Your task to perform on an android device: turn off smart reply in the gmail app Image 0: 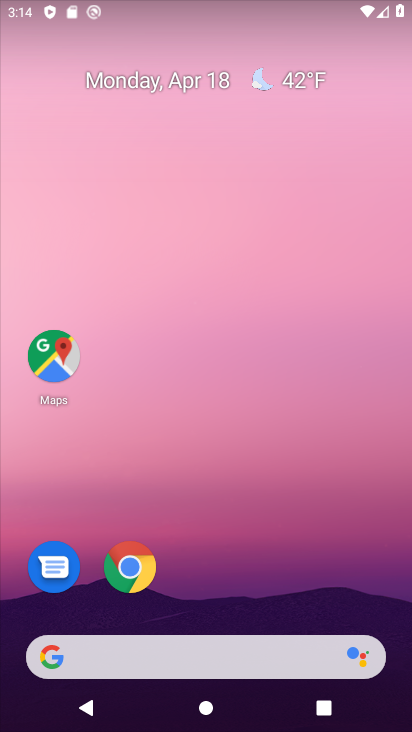
Step 0: drag from (259, 367) to (299, 143)
Your task to perform on an android device: turn off smart reply in the gmail app Image 1: 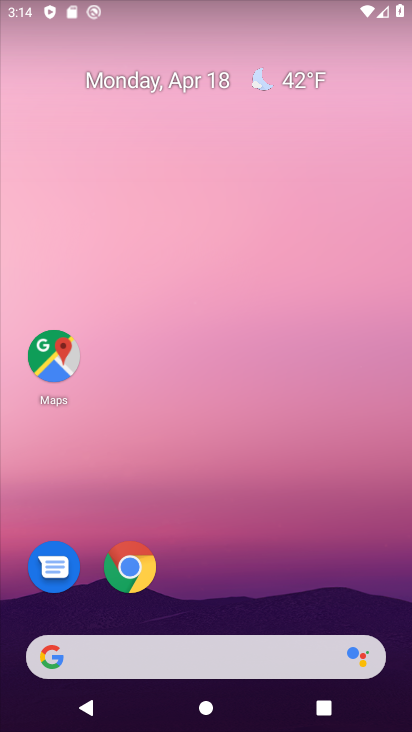
Step 1: drag from (215, 641) to (335, 80)
Your task to perform on an android device: turn off smart reply in the gmail app Image 2: 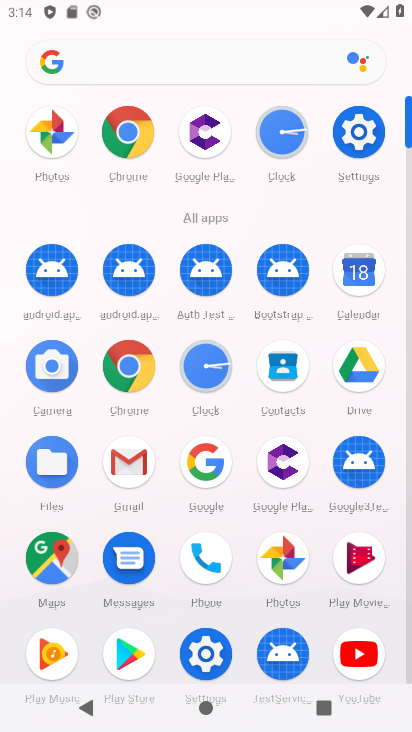
Step 2: click (149, 457)
Your task to perform on an android device: turn off smart reply in the gmail app Image 3: 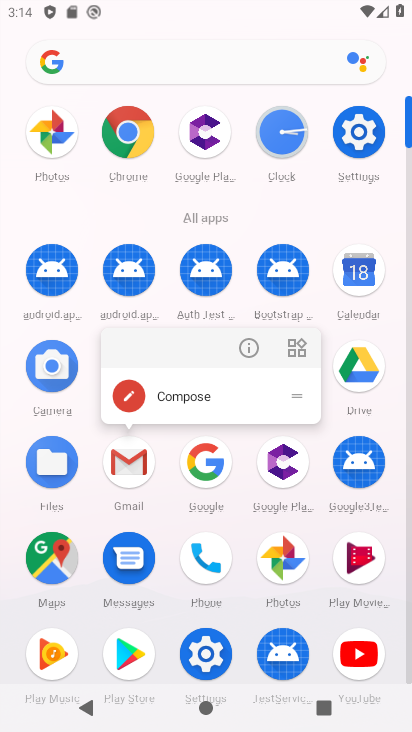
Step 3: click (129, 457)
Your task to perform on an android device: turn off smart reply in the gmail app Image 4: 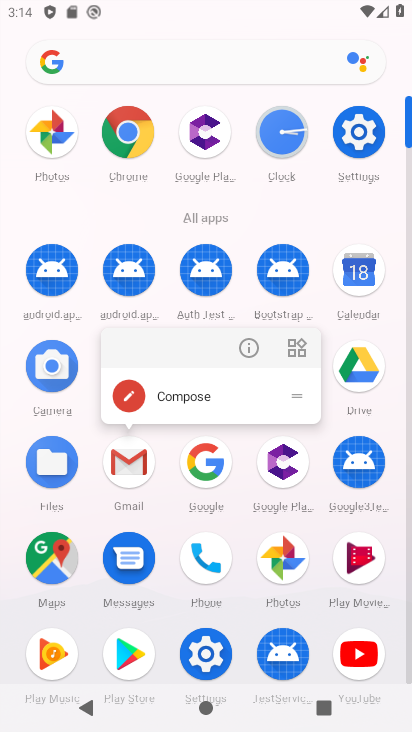
Step 4: click (128, 458)
Your task to perform on an android device: turn off smart reply in the gmail app Image 5: 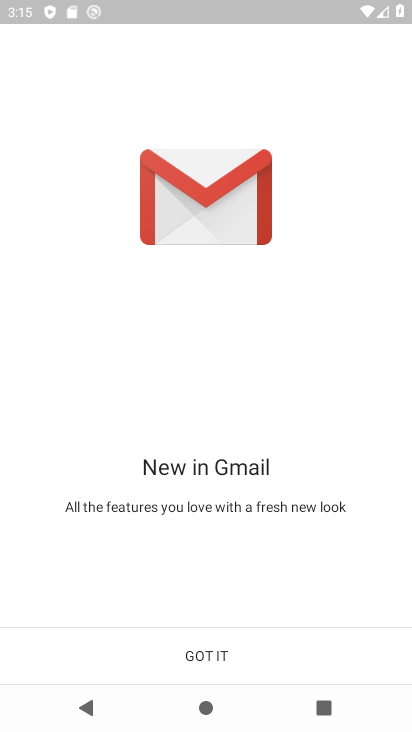
Step 5: click (252, 673)
Your task to perform on an android device: turn off smart reply in the gmail app Image 6: 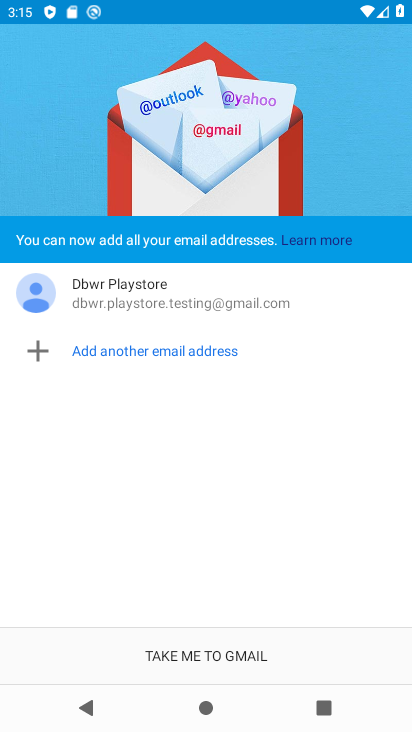
Step 6: click (258, 670)
Your task to perform on an android device: turn off smart reply in the gmail app Image 7: 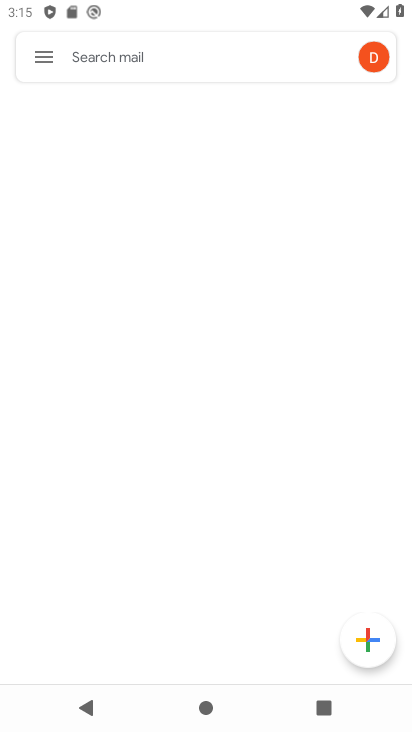
Step 7: click (37, 51)
Your task to perform on an android device: turn off smart reply in the gmail app Image 8: 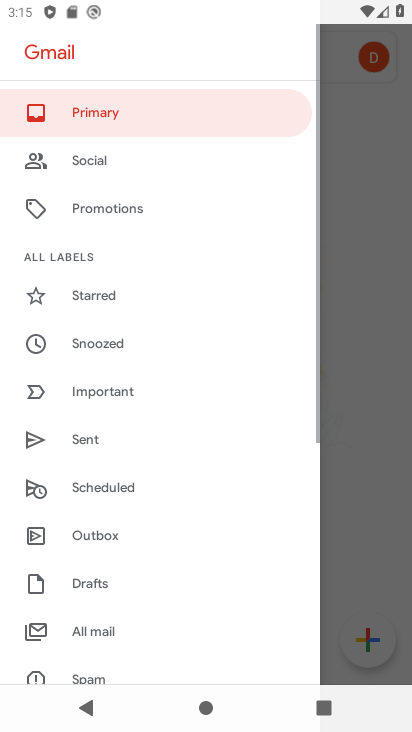
Step 8: drag from (106, 643) to (216, 223)
Your task to perform on an android device: turn off smart reply in the gmail app Image 9: 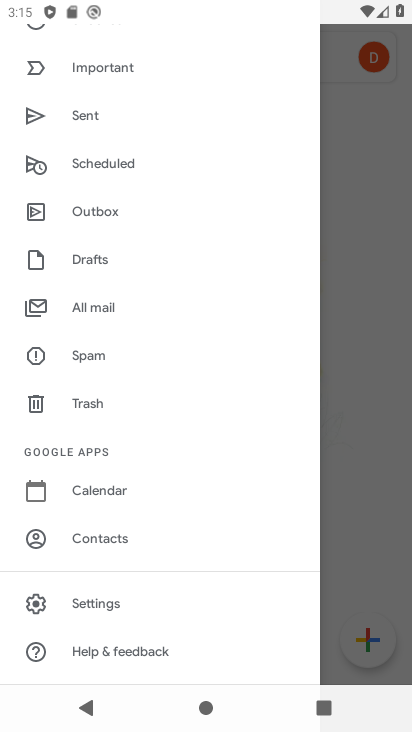
Step 9: click (108, 596)
Your task to perform on an android device: turn off smart reply in the gmail app Image 10: 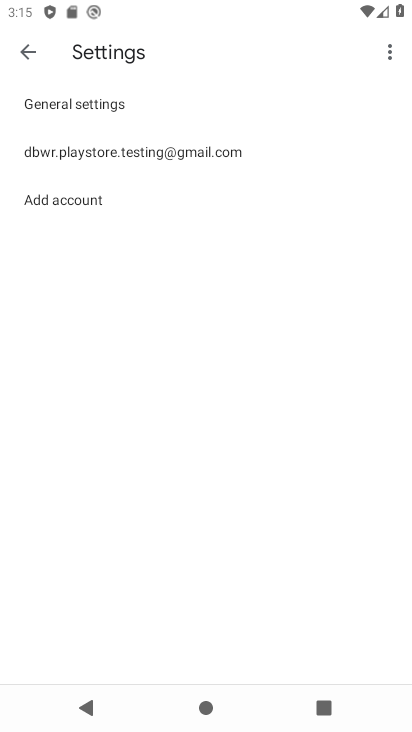
Step 10: click (209, 162)
Your task to perform on an android device: turn off smart reply in the gmail app Image 11: 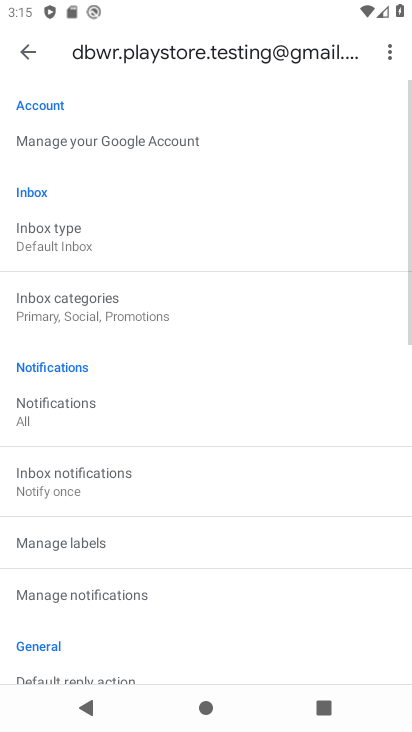
Step 11: drag from (162, 589) to (267, 244)
Your task to perform on an android device: turn off smart reply in the gmail app Image 12: 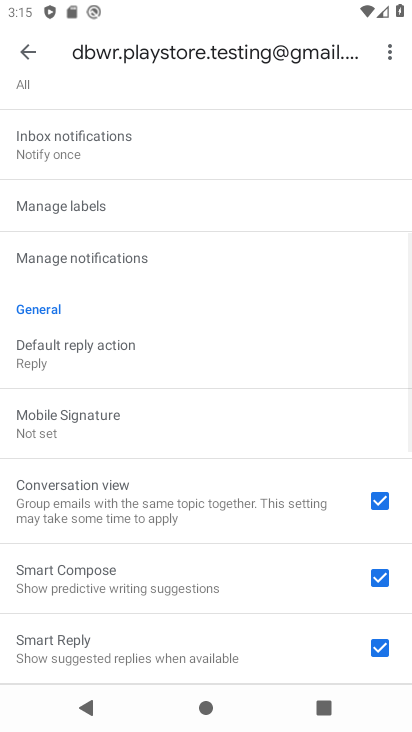
Step 12: drag from (191, 586) to (260, 325)
Your task to perform on an android device: turn off smart reply in the gmail app Image 13: 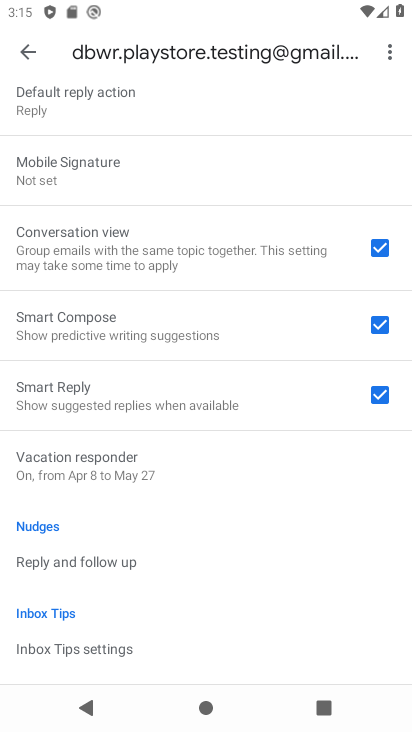
Step 13: click (383, 395)
Your task to perform on an android device: turn off smart reply in the gmail app Image 14: 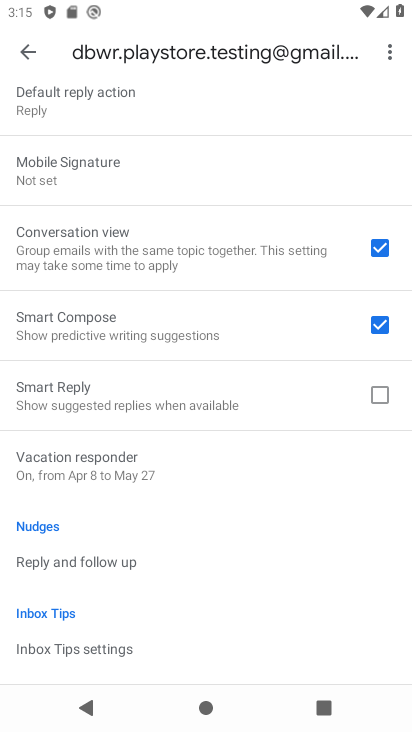
Step 14: task complete